Your task to perform on an android device: Open maps Image 0: 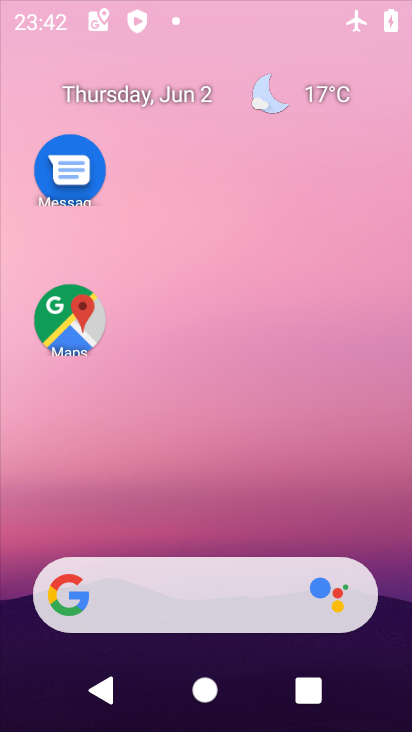
Step 0: press home button
Your task to perform on an android device: Open maps Image 1: 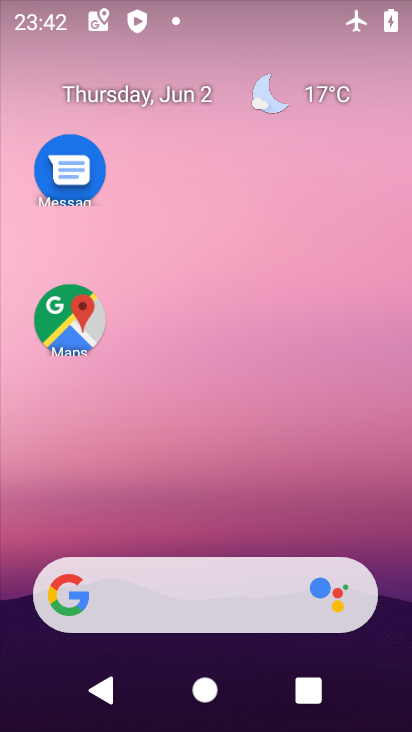
Step 1: click (64, 343)
Your task to perform on an android device: Open maps Image 2: 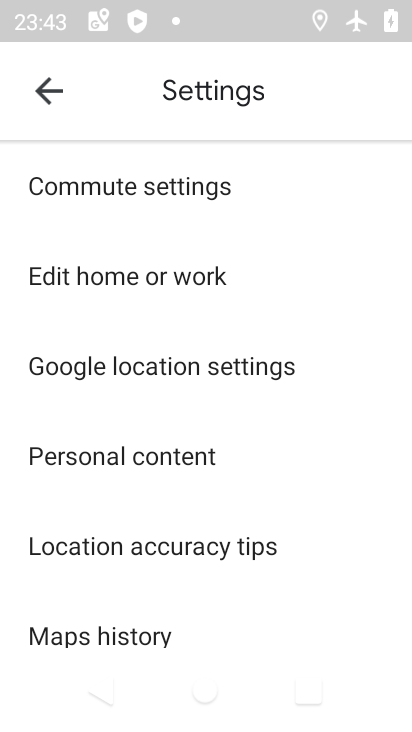
Step 2: task complete